Your task to perform on an android device: turn on bluetooth scan Image 0: 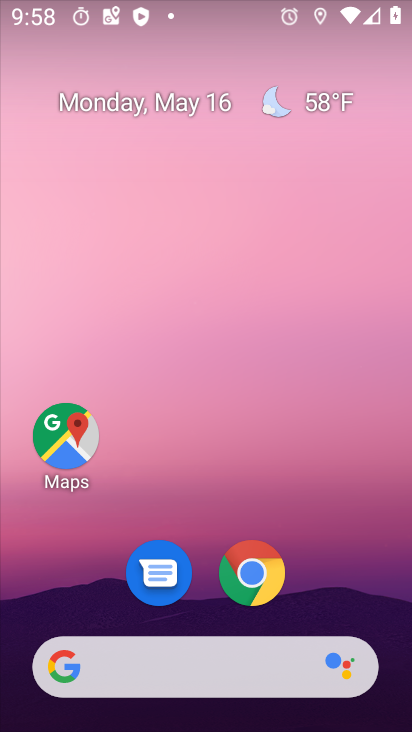
Step 0: drag from (341, 686) to (30, 353)
Your task to perform on an android device: turn on bluetooth scan Image 1: 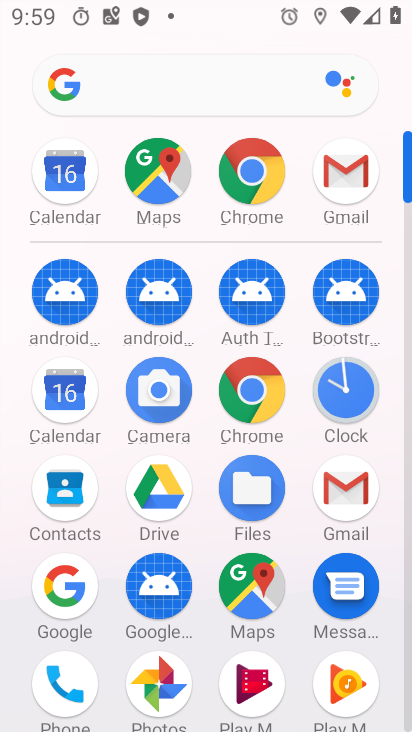
Step 1: click (264, 285)
Your task to perform on an android device: turn on bluetooth scan Image 2: 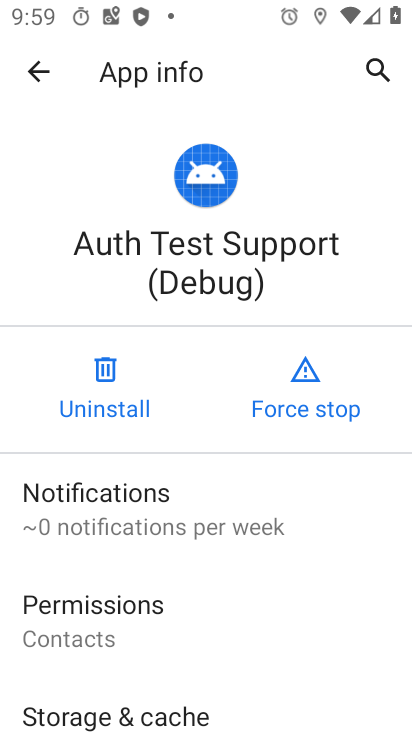
Step 2: click (20, 58)
Your task to perform on an android device: turn on bluetooth scan Image 3: 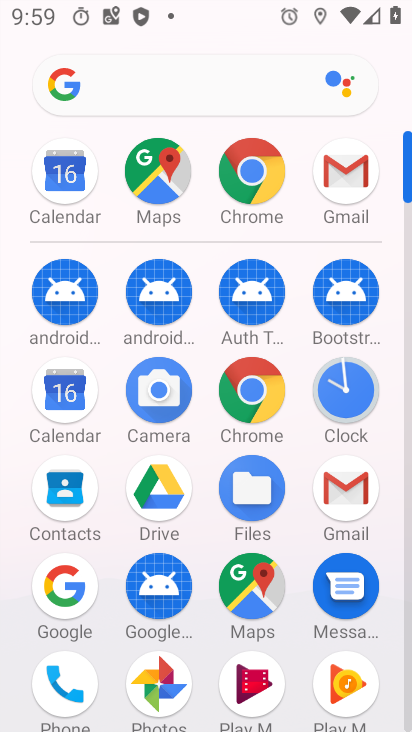
Step 3: drag from (182, 531) to (152, 50)
Your task to perform on an android device: turn on bluetooth scan Image 4: 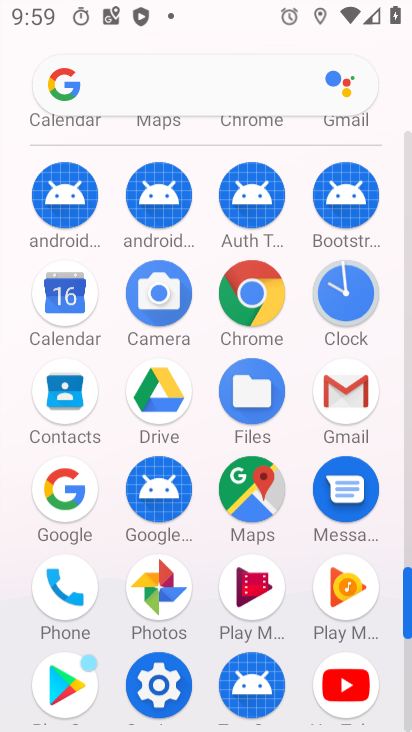
Step 4: drag from (201, 407) to (201, 16)
Your task to perform on an android device: turn on bluetooth scan Image 5: 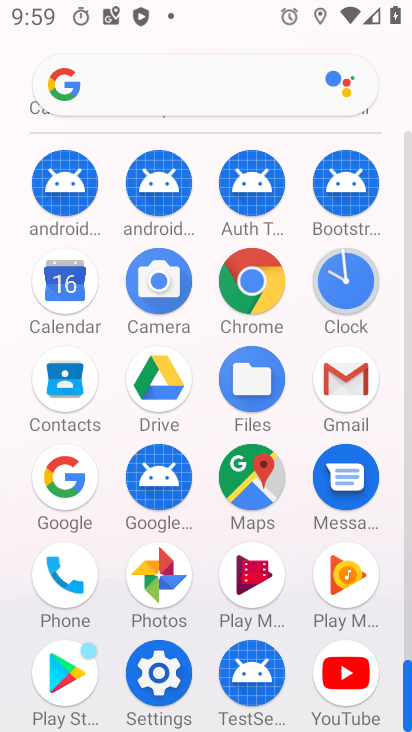
Step 5: click (170, 663)
Your task to perform on an android device: turn on bluetooth scan Image 6: 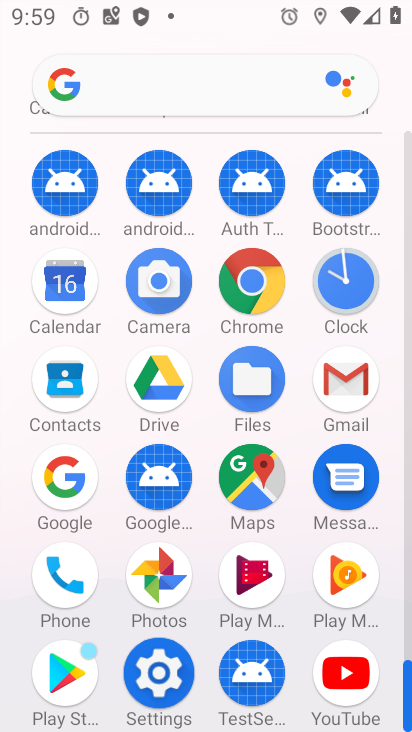
Step 6: click (172, 665)
Your task to perform on an android device: turn on bluetooth scan Image 7: 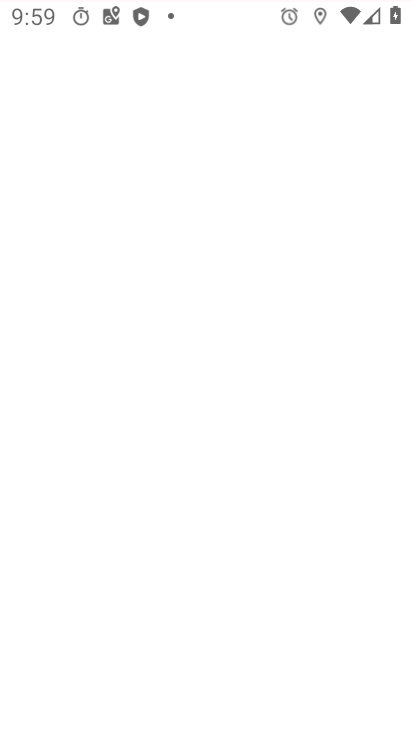
Step 7: click (171, 664)
Your task to perform on an android device: turn on bluetooth scan Image 8: 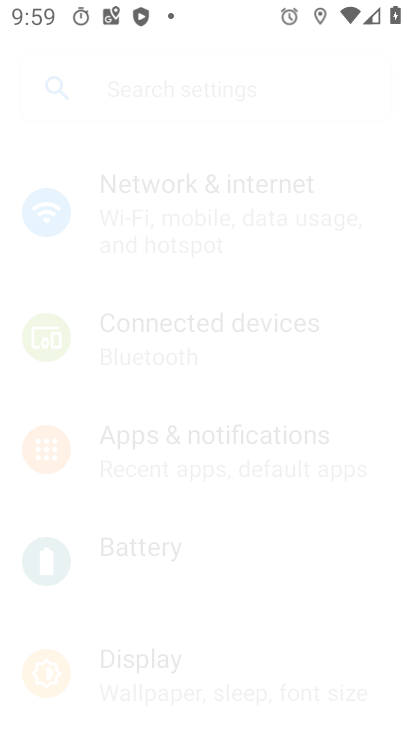
Step 8: click (170, 659)
Your task to perform on an android device: turn on bluetooth scan Image 9: 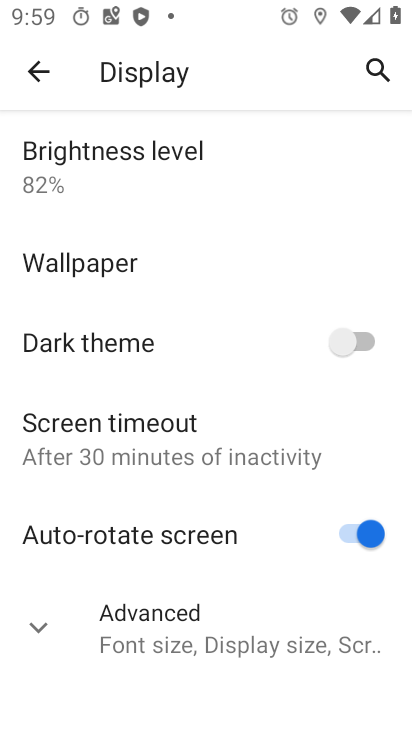
Step 9: click (38, 83)
Your task to perform on an android device: turn on bluetooth scan Image 10: 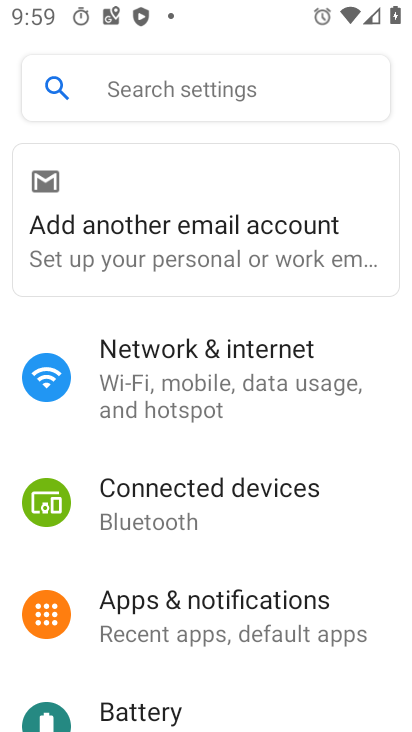
Step 10: drag from (211, 541) to (118, 54)
Your task to perform on an android device: turn on bluetooth scan Image 11: 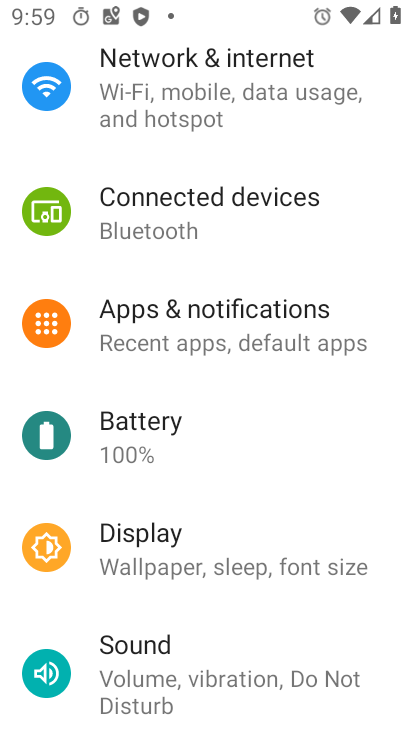
Step 11: drag from (213, 520) to (134, 121)
Your task to perform on an android device: turn on bluetooth scan Image 12: 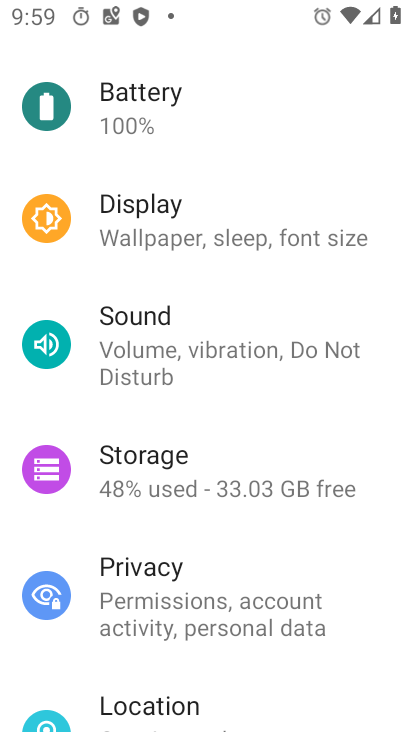
Step 12: drag from (193, 555) to (138, 3)
Your task to perform on an android device: turn on bluetooth scan Image 13: 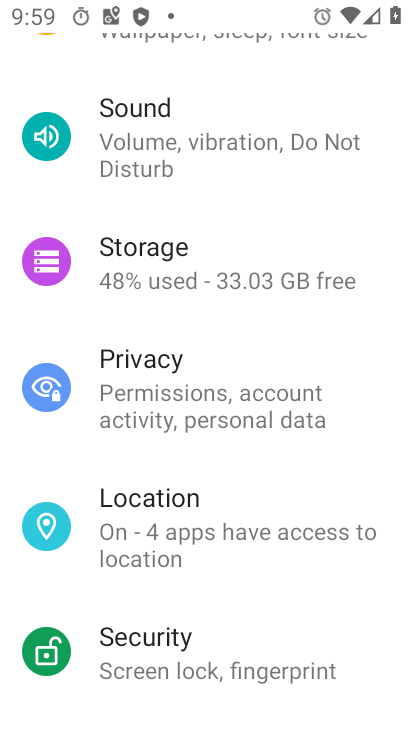
Step 13: drag from (114, 74) to (58, 19)
Your task to perform on an android device: turn on bluetooth scan Image 14: 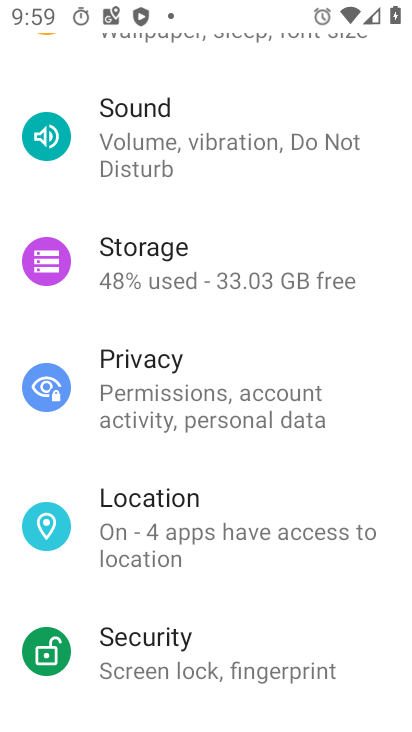
Step 14: click (164, 554)
Your task to perform on an android device: turn on bluetooth scan Image 15: 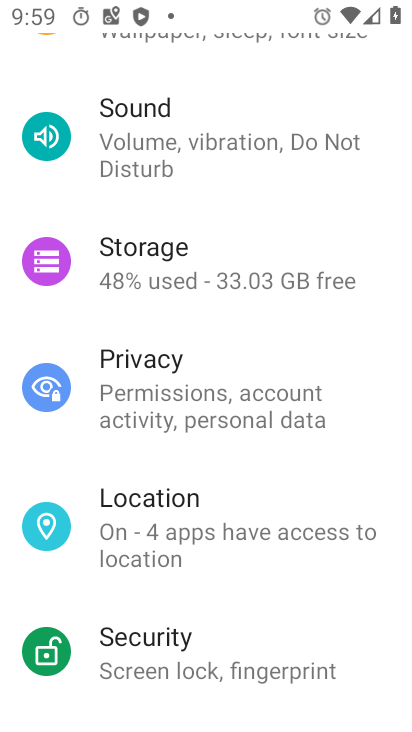
Step 15: drag from (197, 480) to (173, 5)
Your task to perform on an android device: turn on bluetooth scan Image 16: 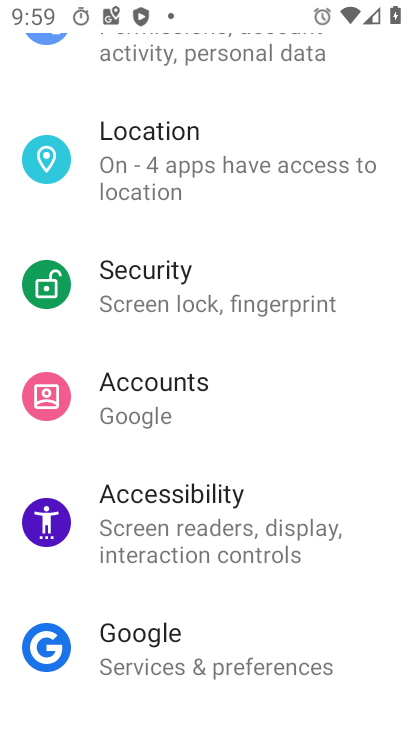
Step 16: drag from (182, 340) to (146, 10)
Your task to perform on an android device: turn on bluetooth scan Image 17: 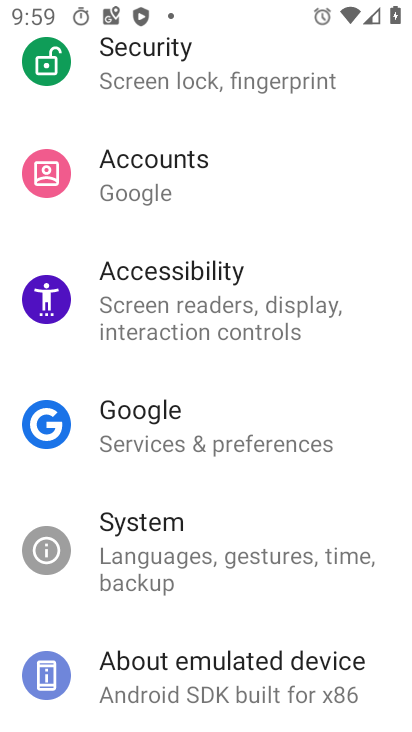
Step 17: drag from (171, 200) to (276, 630)
Your task to perform on an android device: turn on bluetooth scan Image 18: 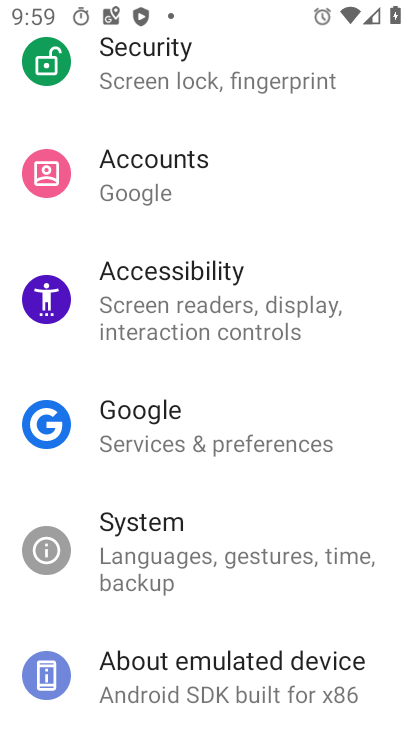
Step 18: drag from (255, 227) to (340, 644)
Your task to perform on an android device: turn on bluetooth scan Image 19: 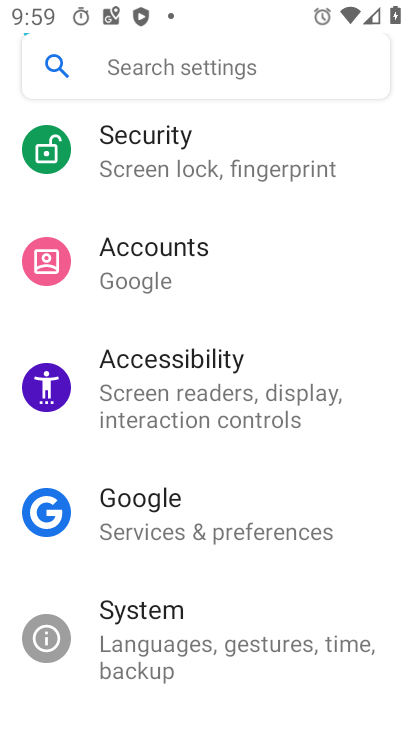
Step 19: drag from (166, 276) to (236, 681)
Your task to perform on an android device: turn on bluetooth scan Image 20: 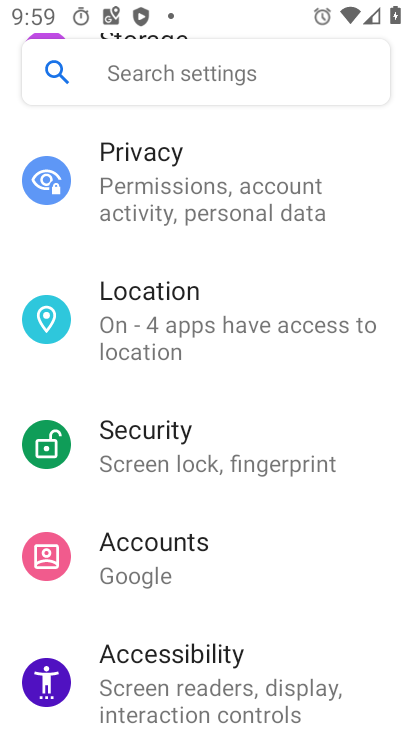
Step 20: drag from (151, 223) to (274, 618)
Your task to perform on an android device: turn on bluetooth scan Image 21: 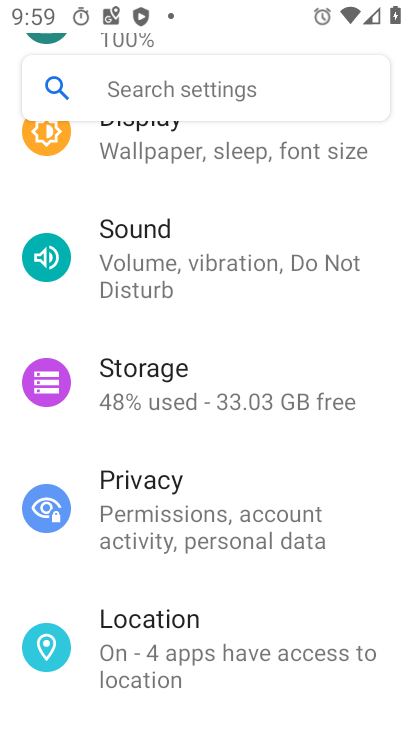
Step 21: click (188, 636)
Your task to perform on an android device: turn on bluetooth scan Image 22: 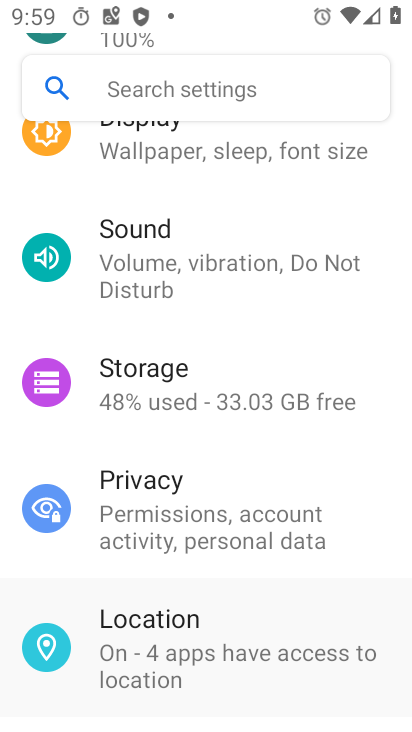
Step 22: click (187, 631)
Your task to perform on an android device: turn on bluetooth scan Image 23: 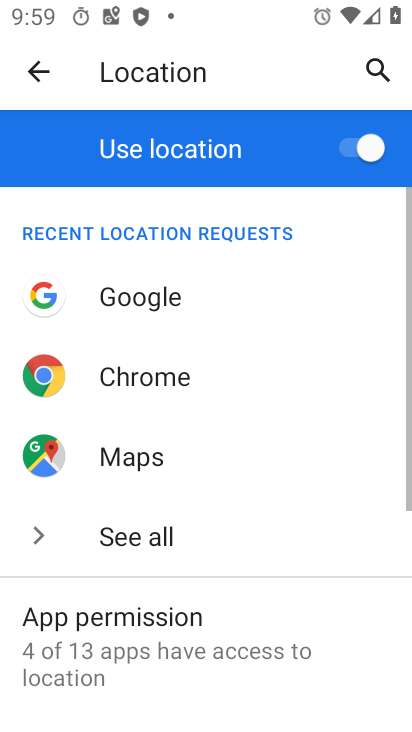
Step 23: drag from (233, 393) to (200, 36)
Your task to perform on an android device: turn on bluetooth scan Image 24: 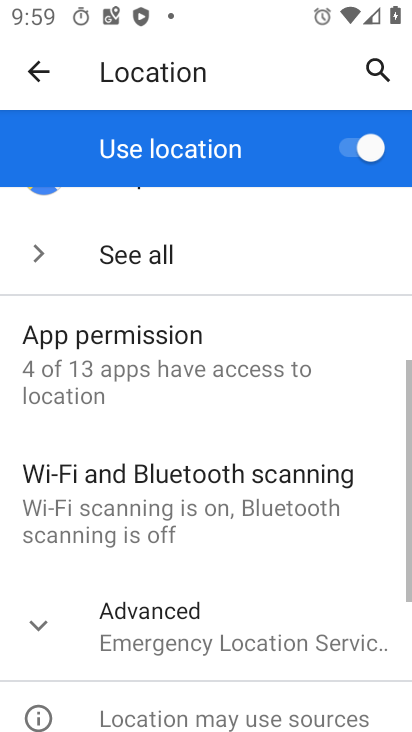
Step 24: drag from (262, 403) to (207, 14)
Your task to perform on an android device: turn on bluetooth scan Image 25: 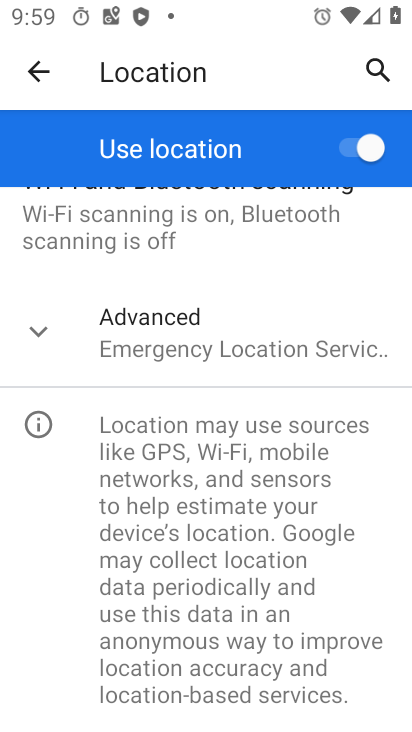
Step 25: drag from (152, 249) to (229, 558)
Your task to perform on an android device: turn on bluetooth scan Image 26: 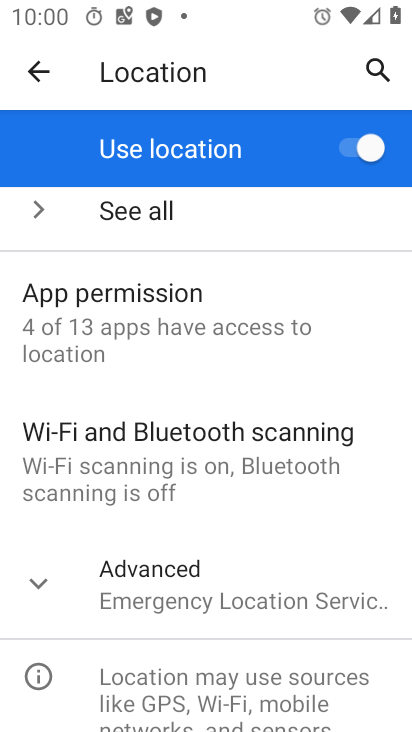
Step 26: click (213, 443)
Your task to perform on an android device: turn on bluetooth scan Image 27: 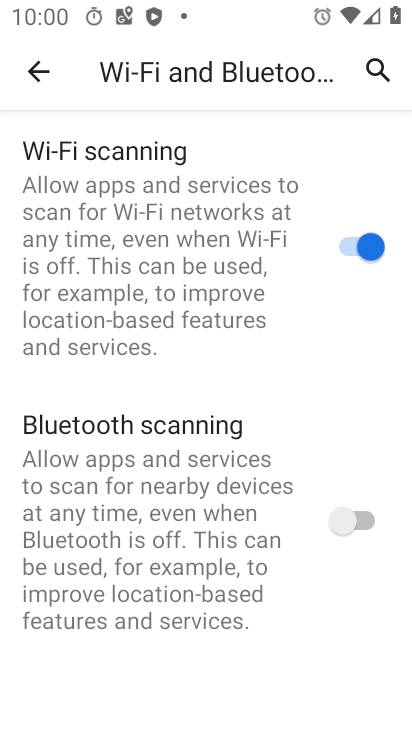
Step 27: click (363, 522)
Your task to perform on an android device: turn on bluetooth scan Image 28: 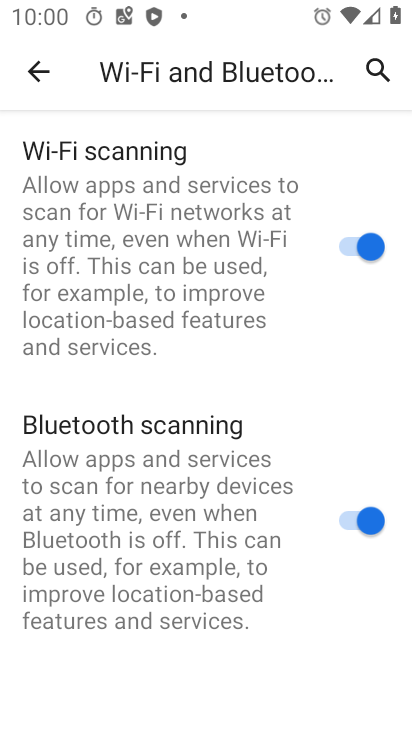
Step 28: task complete